Your task to perform on an android device: Open Amazon Image 0: 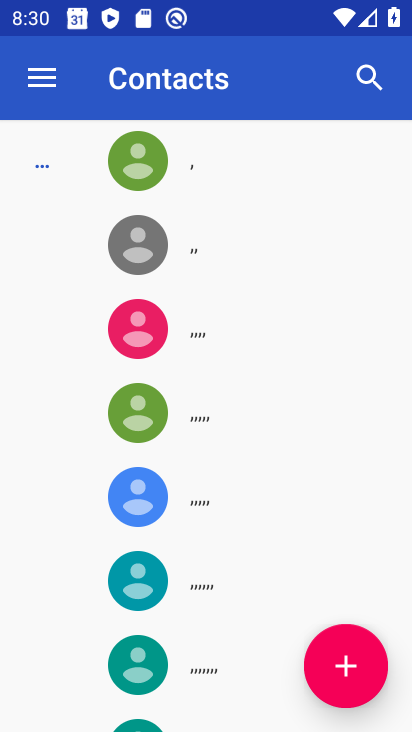
Step 0: press back button
Your task to perform on an android device: Open Amazon Image 1: 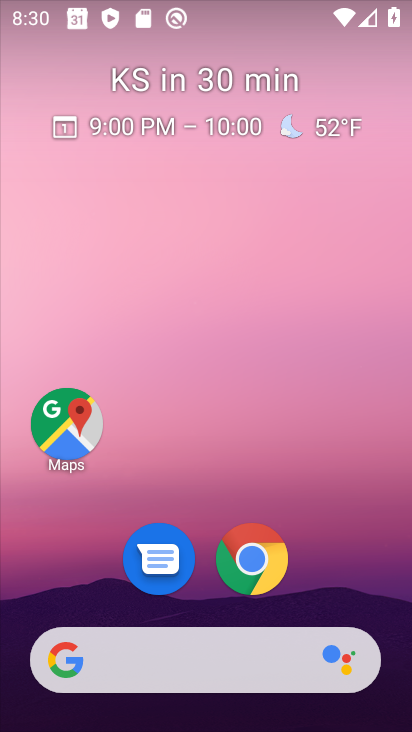
Step 1: drag from (303, 457) to (243, 1)
Your task to perform on an android device: Open Amazon Image 2: 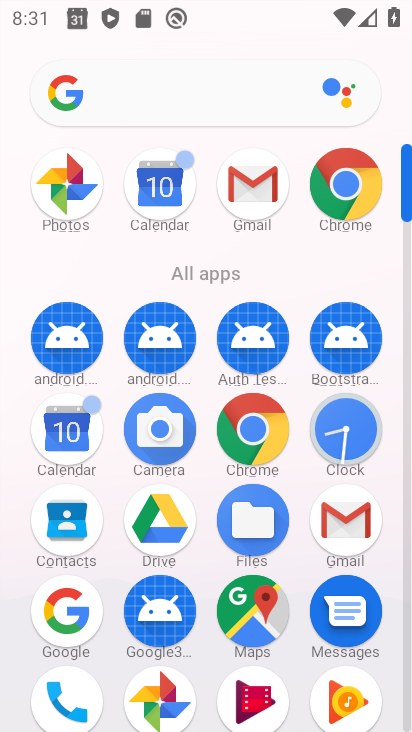
Step 2: click (346, 177)
Your task to perform on an android device: Open Amazon Image 3: 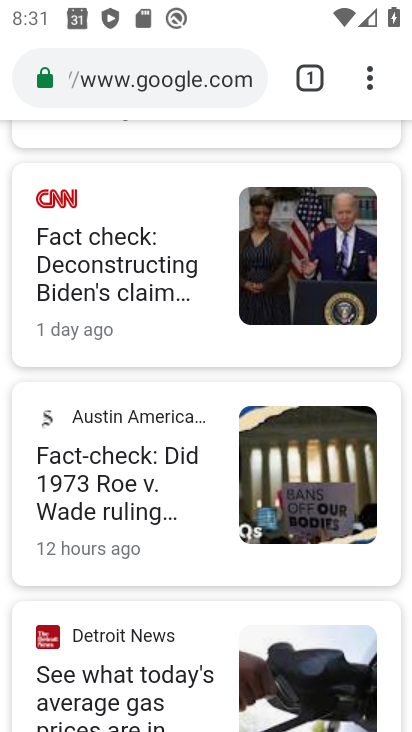
Step 3: click (178, 73)
Your task to perform on an android device: Open Amazon Image 4: 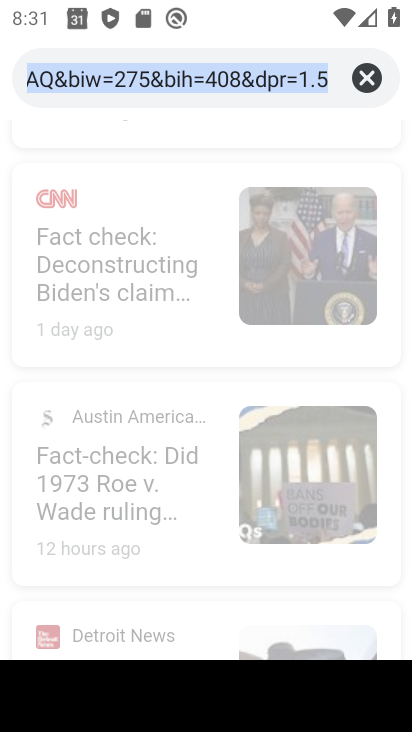
Step 4: click (366, 72)
Your task to perform on an android device: Open Amazon Image 5: 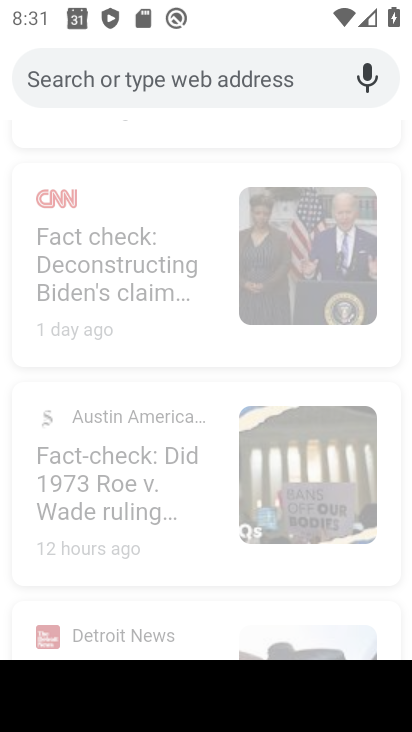
Step 5: type "Amazon"
Your task to perform on an android device: Open Amazon Image 6: 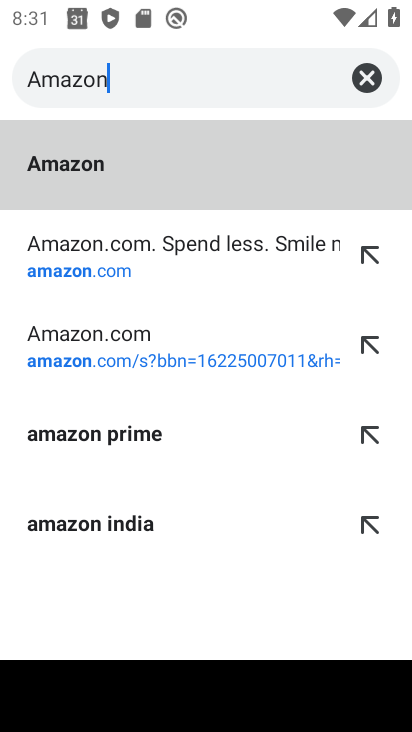
Step 6: click (113, 248)
Your task to perform on an android device: Open Amazon Image 7: 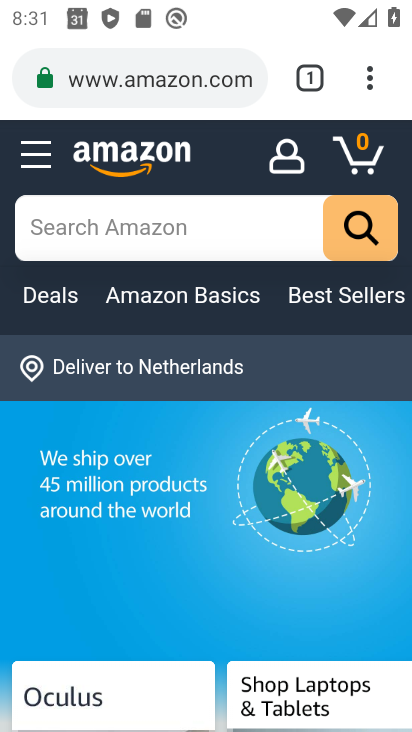
Step 7: task complete